Your task to perform on an android device: allow cookies in the chrome app Image 0: 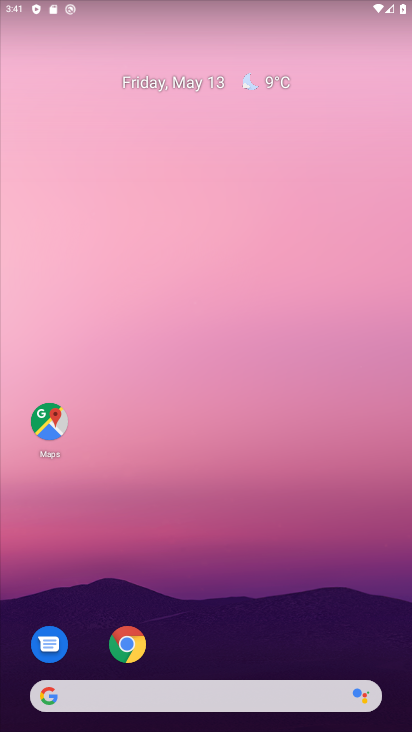
Step 0: click (136, 655)
Your task to perform on an android device: allow cookies in the chrome app Image 1: 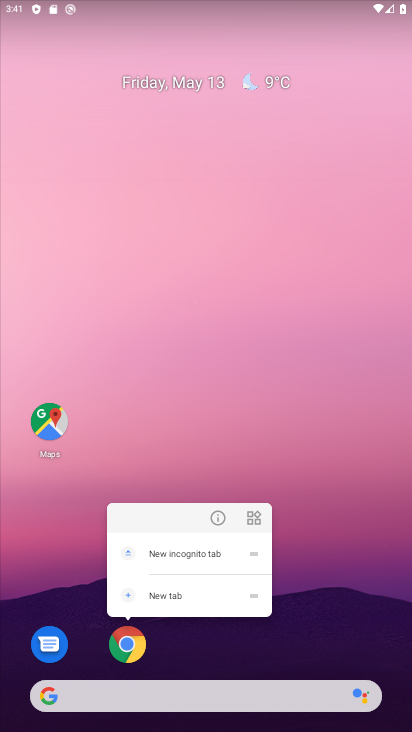
Step 1: click (126, 643)
Your task to perform on an android device: allow cookies in the chrome app Image 2: 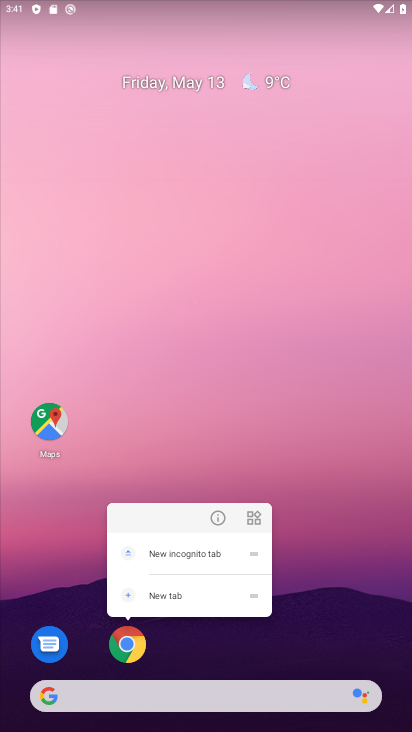
Step 2: click (126, 643)
Your task to perform on an android device: allow cookies in the chrome app Image 3: 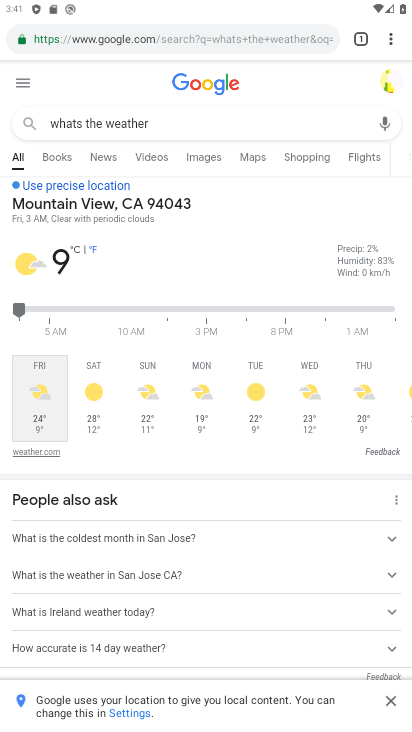
Step 3: drag from (391, 44) to (307, 435)
Your task to perform on an android device: allow cookies in the chrome app Image 4: 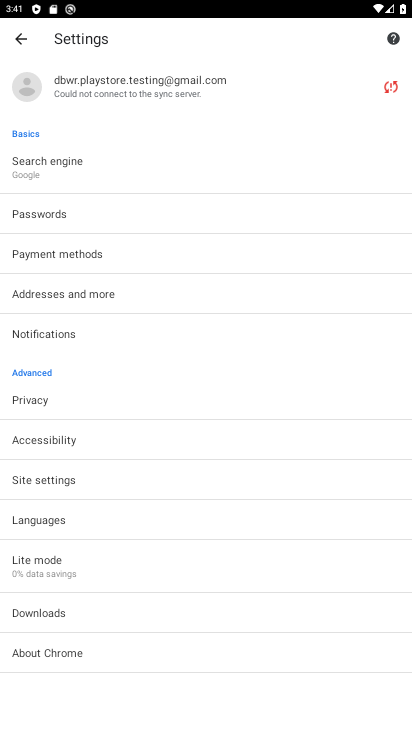
Step 4: drag from (307, 435) to (44, 482)
Your task to perform on an android device: allow cookies in the chrome app Image 5: 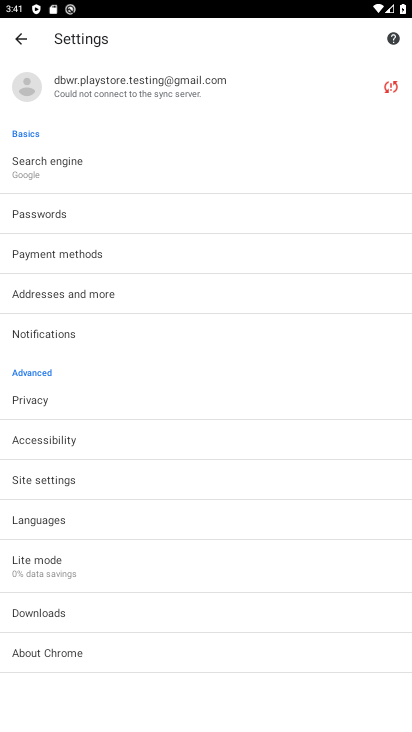
Step 5: click (44, 482)
Your task to perform on an android device: allow cookies in the chrome app Image 6: 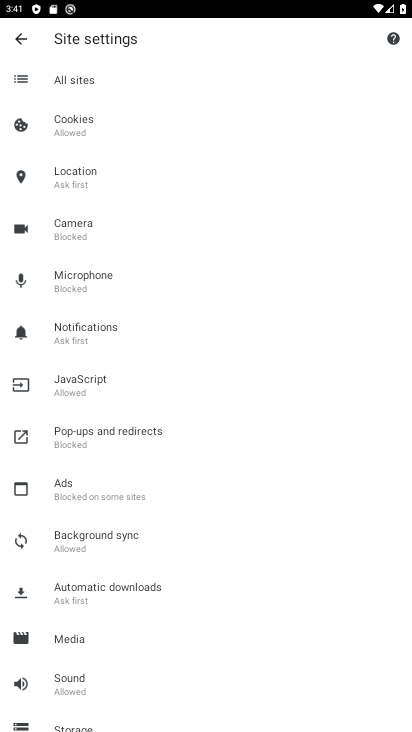
Step 6: click (120, 117)
Your task to perform on an android device: allow cookies in the chrome app Image 7: 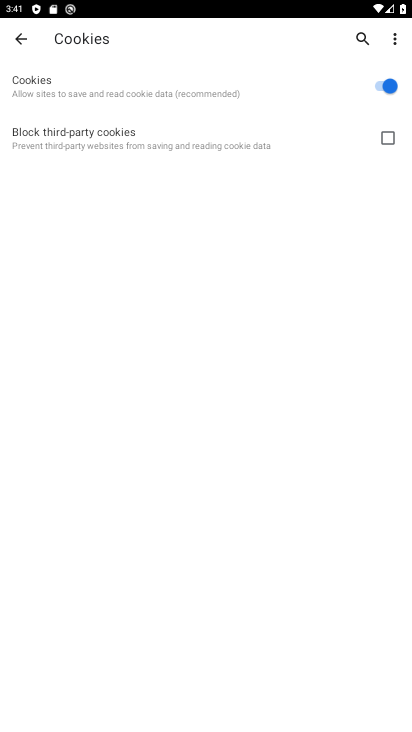
Step 7: task complete